Your task to perform on an android device: What's the weather today? Image 0: 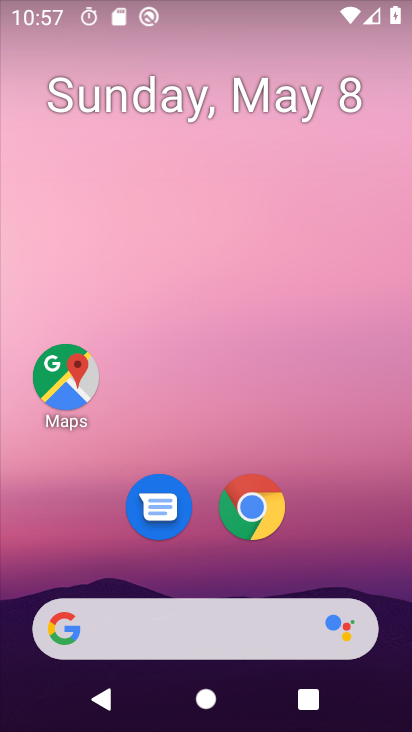
Step 0: drag from (204, 723) to (196, 217)
Your task to perform on an android device: What's the weather today? Image 1: 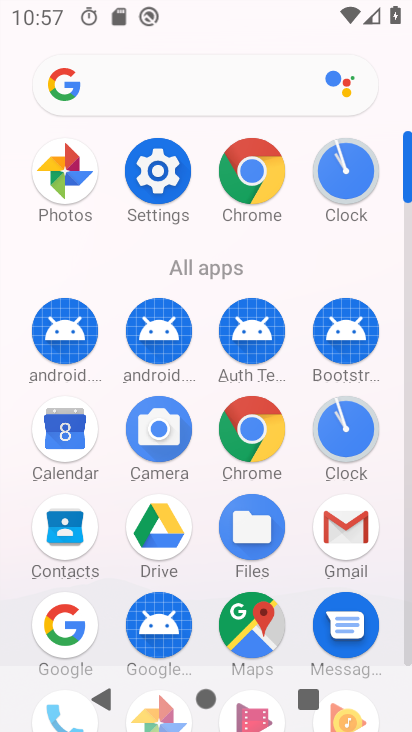
Step 1: click (159, 167)
Your task to perform on an android device: What's the weather today? Image 2: 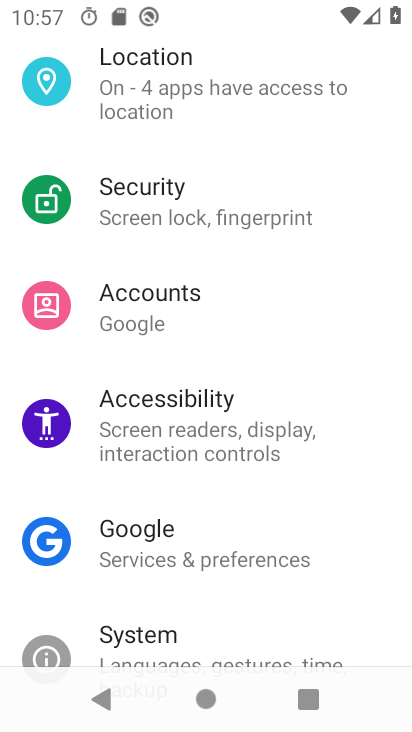
Step 2: press back button
Your task to perform on an android device: What's the weather today? Image 3: 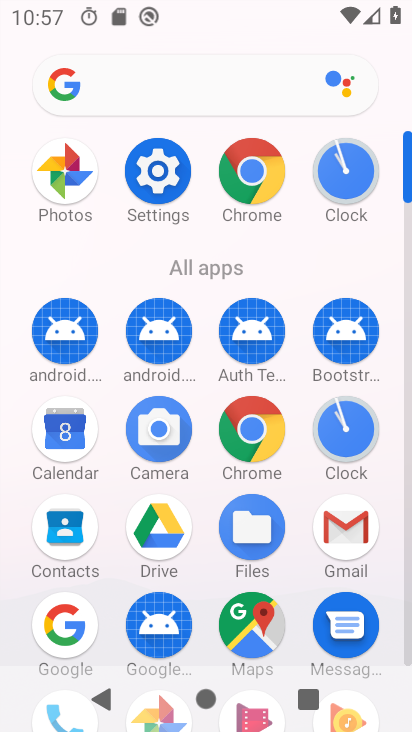
Step 3: click (55, 614)
Your task to perform on an android device: What's the weather today? Image 4: 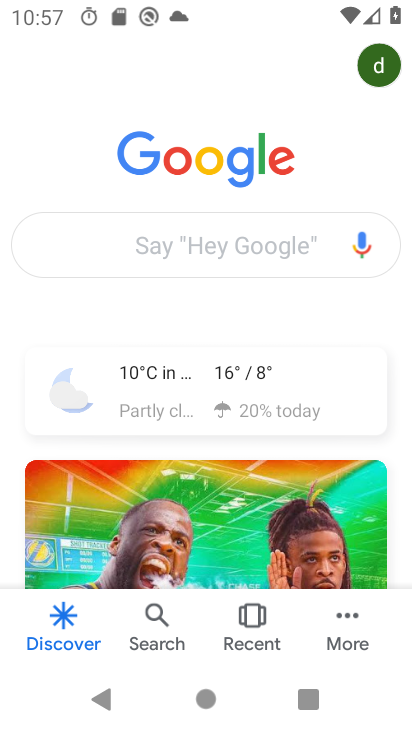
Step 4: click (157, 363)
Your task to perform on an android device: What's the weather today? Image 5: 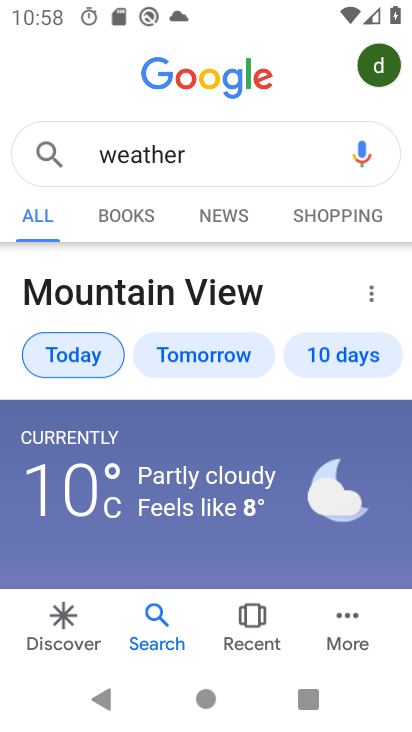
Step 5: click (68, 349)
Your task to perform on an android device: What's the weather today? Image 6: 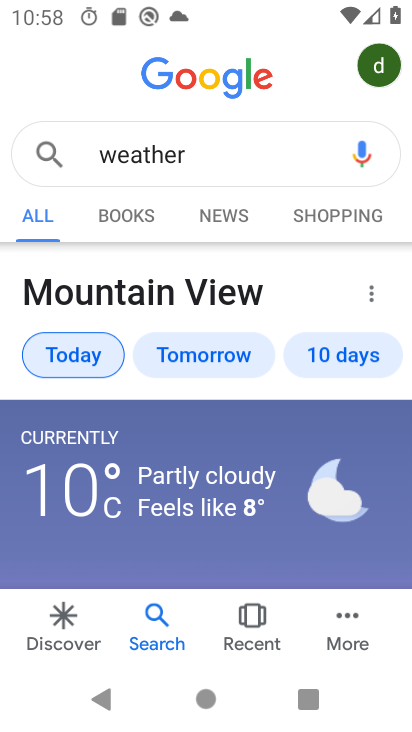
Step 6: task complete